Your task to perform on an android device: check battery use Image 0: 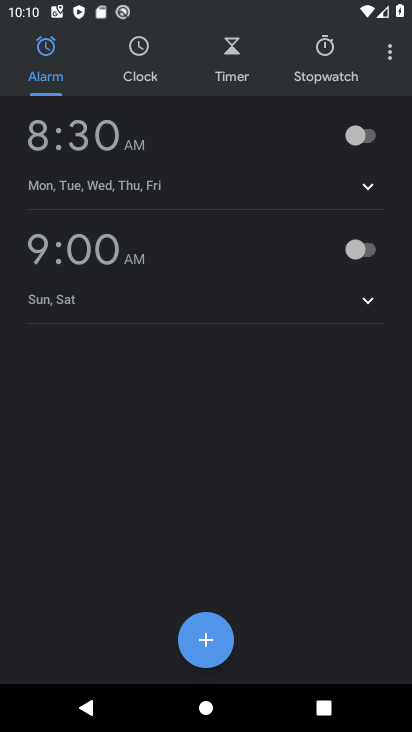
Step 0: press home button
Your task to perform on an android device: check battery use Image 1: 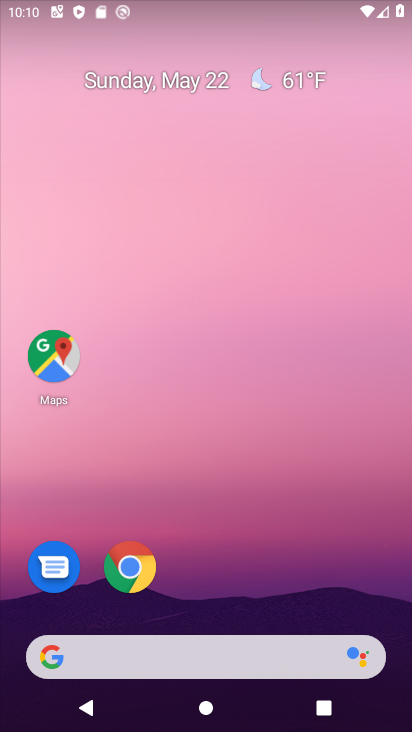
Step 1: drag from (197, 629) to (144, 0)
Your task to perform on an android device: check battery use Image 2: 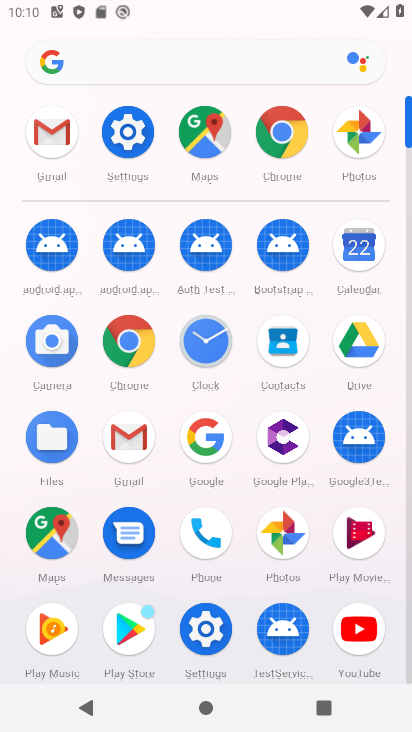
Step 2: click (130, 131)
Your task to perform on an android device: check battery use Image 3: 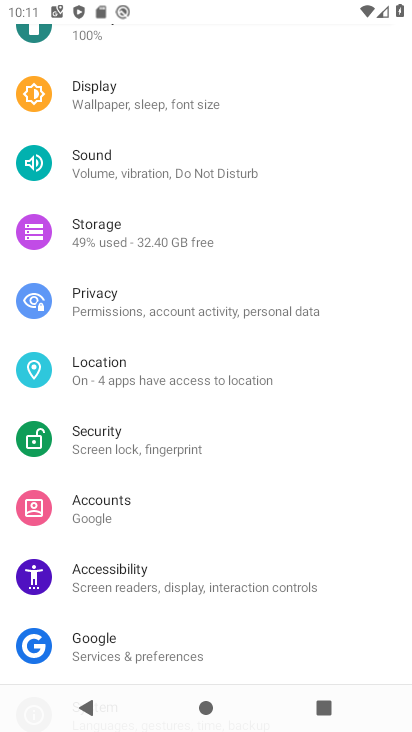
Step 3: drag from (195, 558) to (31, 731)
Your task to perform on an android device: check battery use Image 4: 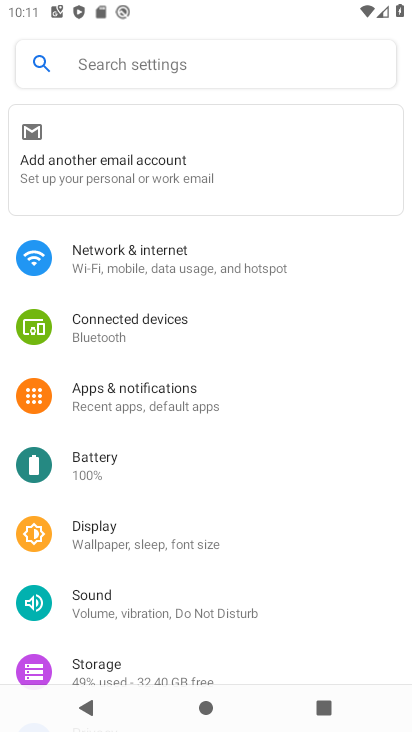
Step 4: click (126, 460)
Your task to perform on an android device: check battery use Image 5: 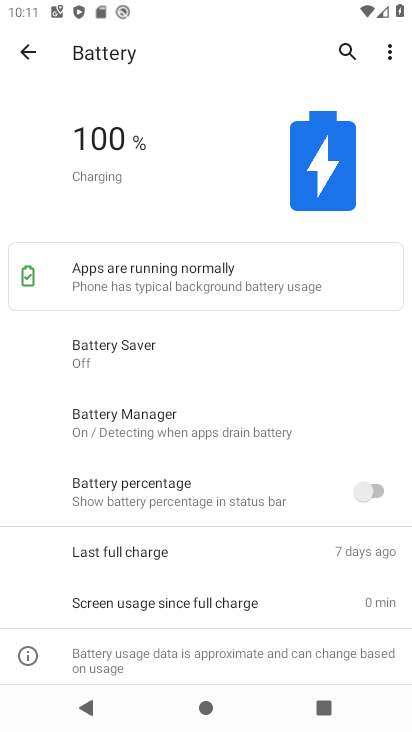
Step 5: task complete